Your task to perform on an android device: Open Youtube and go to the subscriptions tab Image 0: 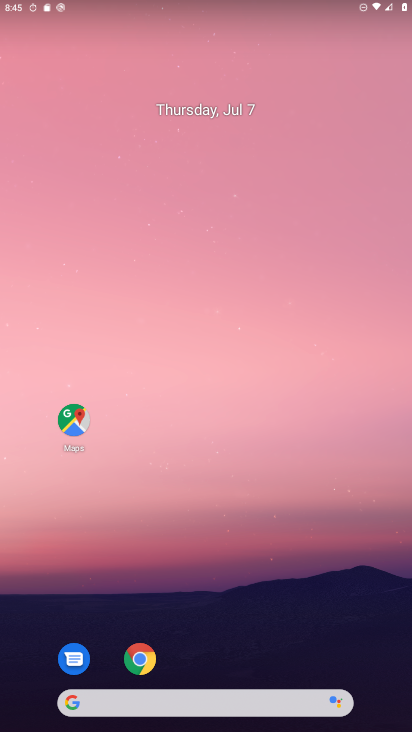
Step 0: click (208, 34)
Your task to perform on an android device: Open Youtube and go to the subscriptions tab Image 1: 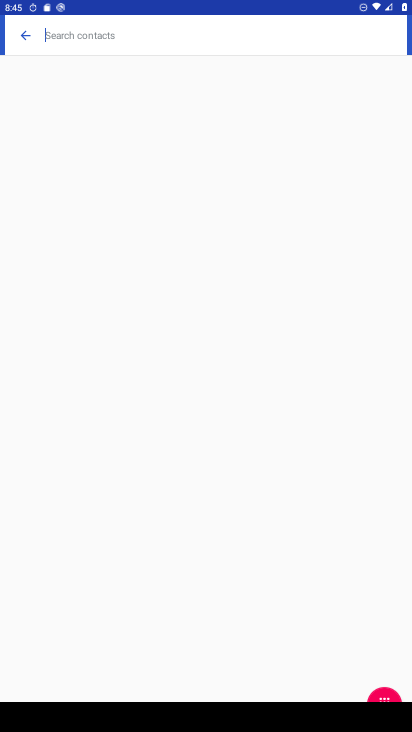
Step 1: press home button
Your task to perform on an android device: Open Youtube and go to the subscriptions tab Image 2: 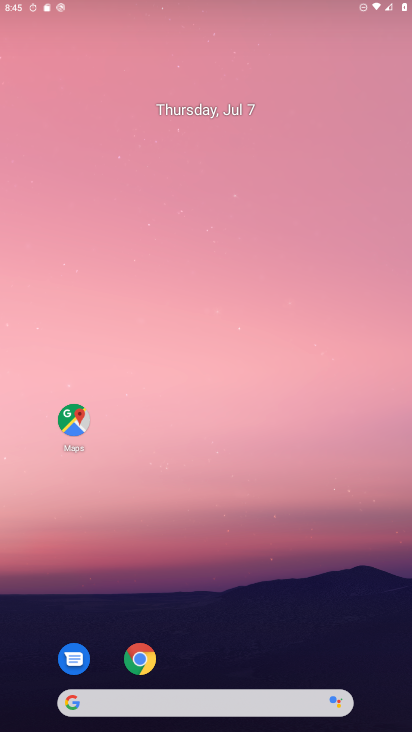
Step 2: drag from (383, 652) to (151, 2)
Your task to perform on an android device: Open Youtube and go to the subscriptions tab Image 3: 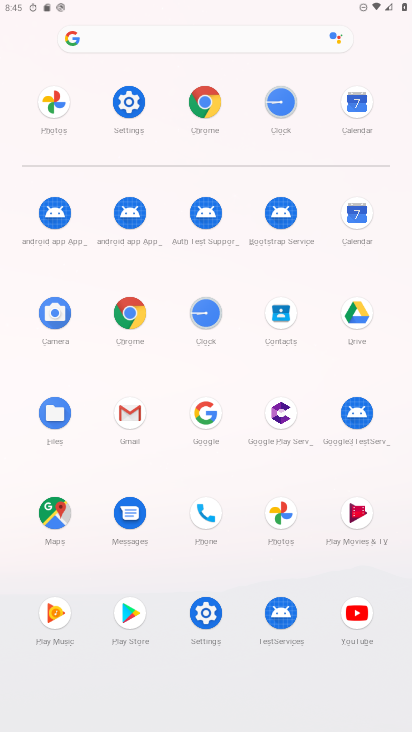
Step 3: click (365, 631)
Your task to perform on an android device: Open Youtube and go to the subscriptions tab Image 4: 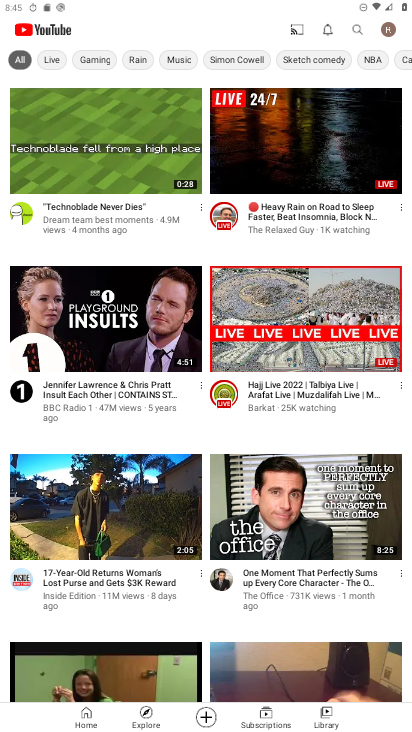
Step 4: click (260, 715)
Your task to perform on an android device: Open Youtube and go to the subscriptions tab Image 5: 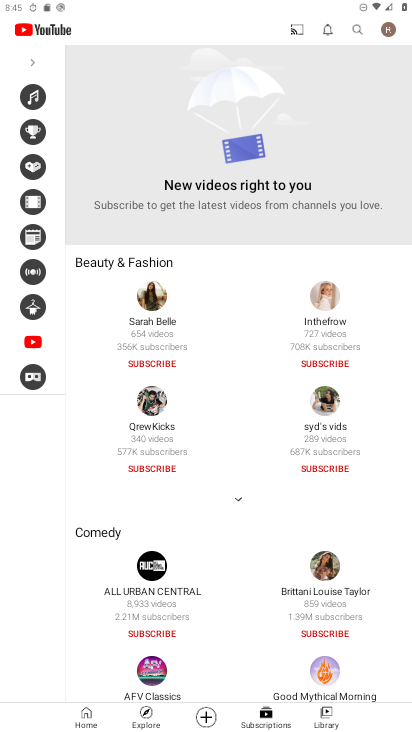
Step 5: task complete